Your task to perform on an android device: check out phone information Image 0: 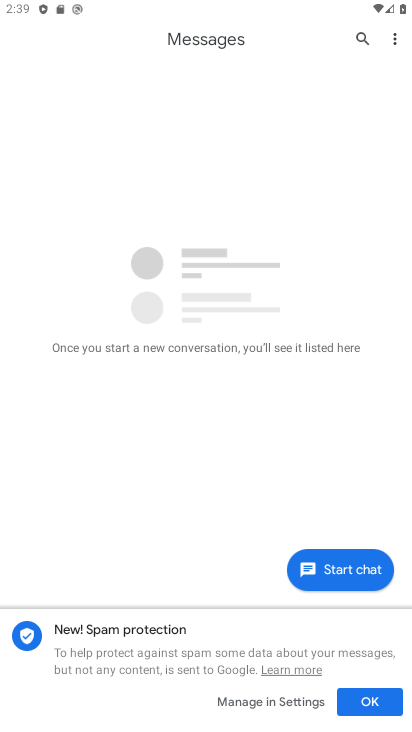
Step 0: press home button
Your task to perform on an android device: check out phone information Image 1: 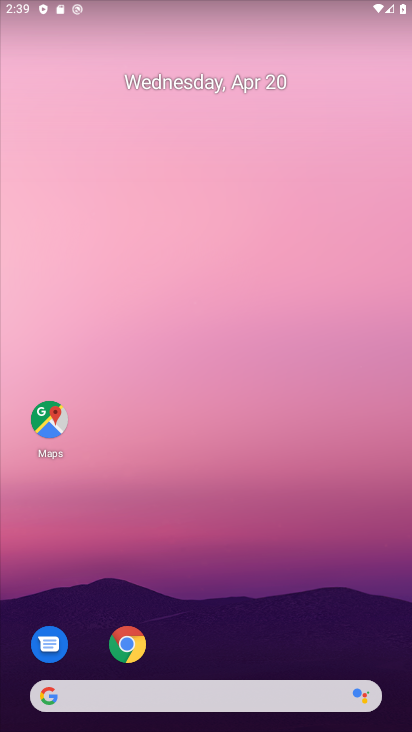
Step 1: drag from (213, 342) to (247, 98)
Your task to perform on an android device: check out phone information Image 2: 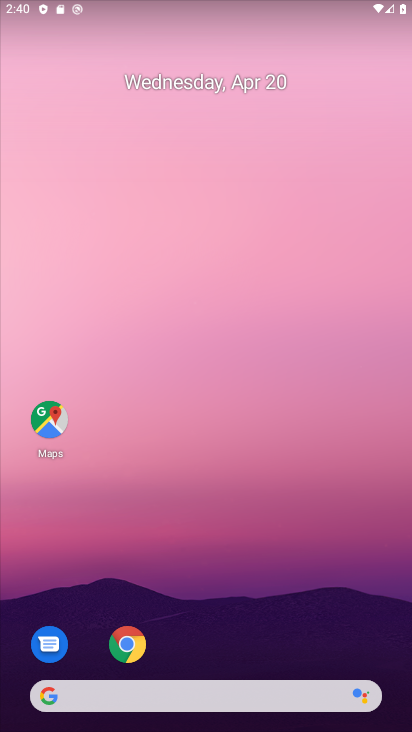
Step 2: drag from (185, 526) to (233, 15)
Your task to perform on an android device: check out phone information Image 3: 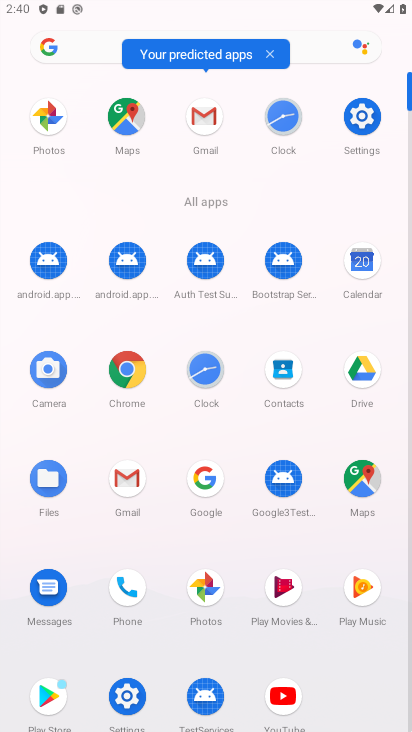
Step 3: click (370, 118)
Your task to perform on an android device: check out phone information Image 4: 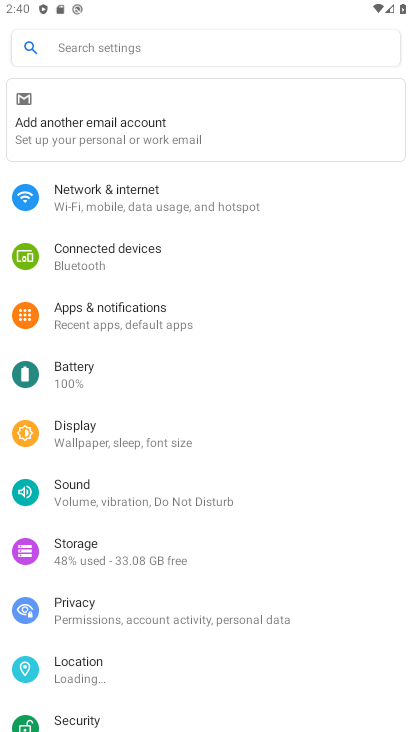
Step 4: drag from (160, 633) to (226, 70)
Your task to perform on an android device: check out phone information Image 5: 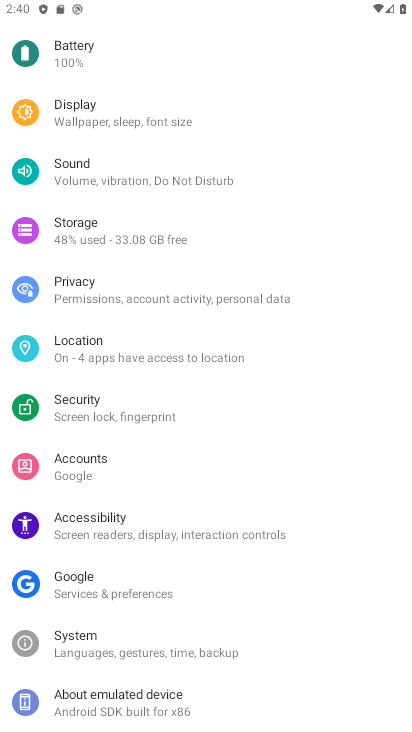
Step 5: click (167, 703)
Your task to perform on an android device: check out phone information Image 6: 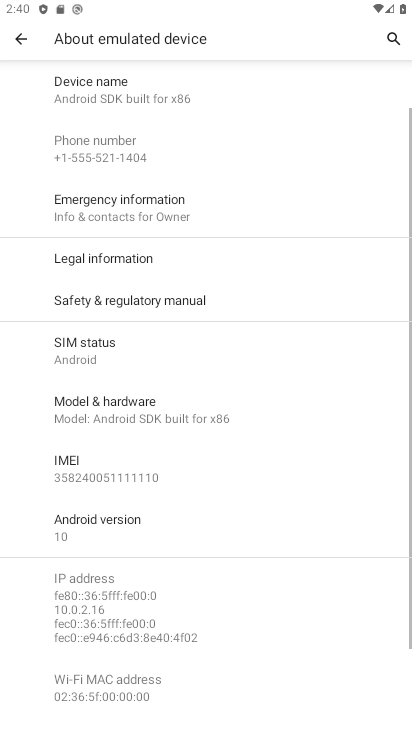
Step 6: task complete